Your task to perform on an android device: change notification settings in the gmail app Image 0: 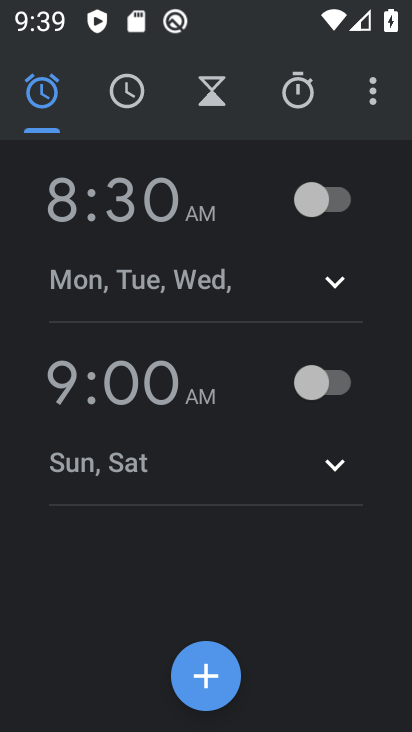
Step 0: press home button
Your task to perform on an android device: change notification settings in the gmail app Image 1: 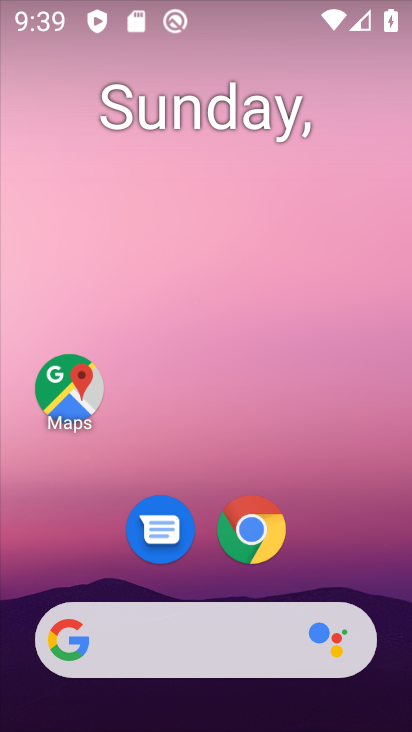
Step 1: drag from (331, 578) to (219, 48)
Your task to perform on an android device: change notification settings in the gmail app Image 2: 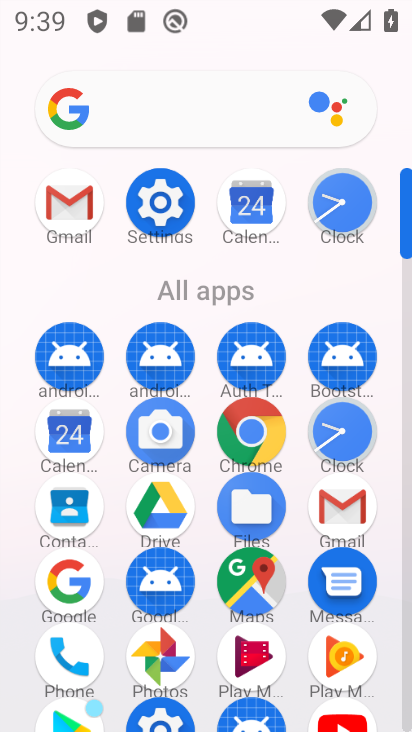
Step 2: click (65, 209)
Your task to perform on an android device: change notification settings in the gmail app Image 3: 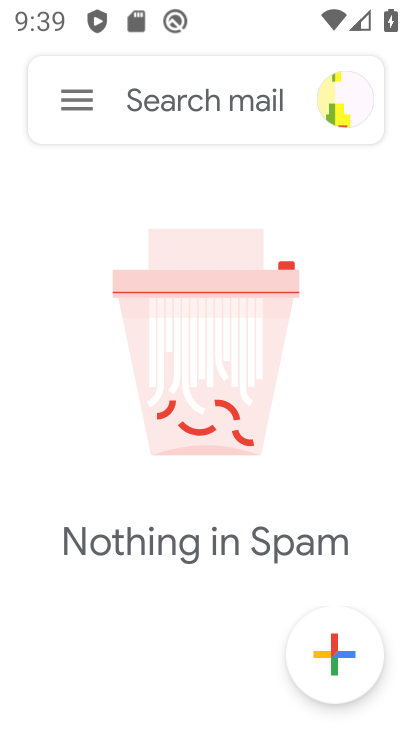
Step 3: click (84, 99)
Your task to perform on an android device: change notification settings in the gmail app Image 4: 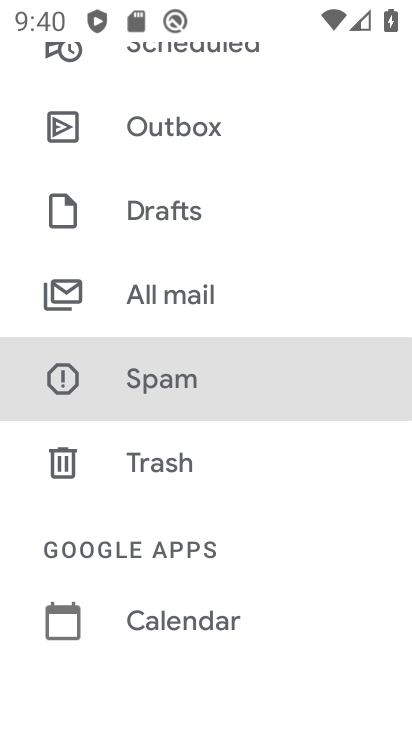
Step 4: drag from (261, 604) to (220, 227)
Your task to perform on an android device: change notification settings in the gmail app Image 5: 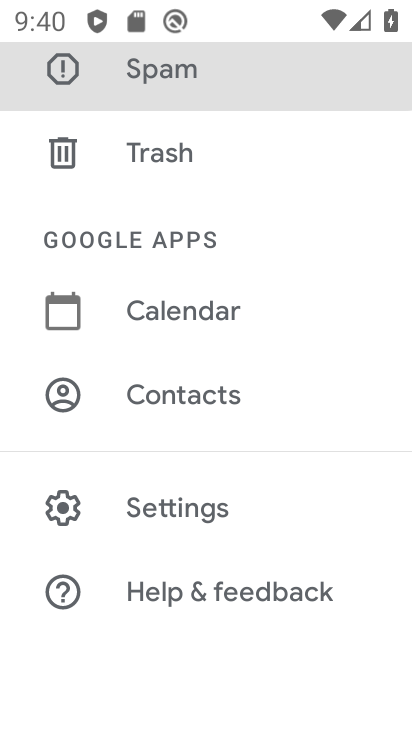
Step 5: click (186, 504)
Your task to perform on an android device: change notification settings in the gmail app Image 6: 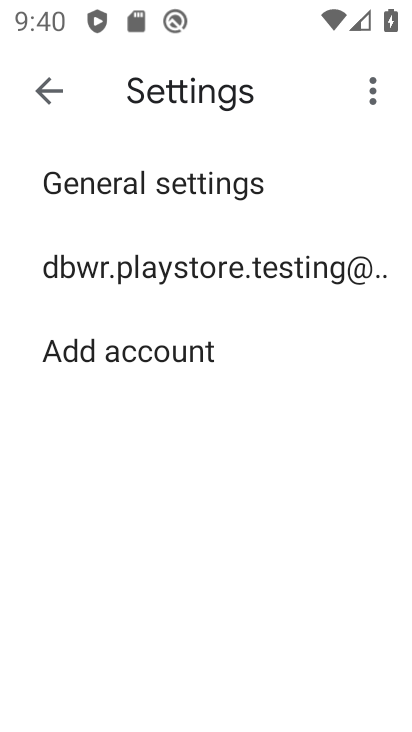
Step 6: click (163, 264)
Your task to perform on an android device: change notification settings in the gmail app Image 7: 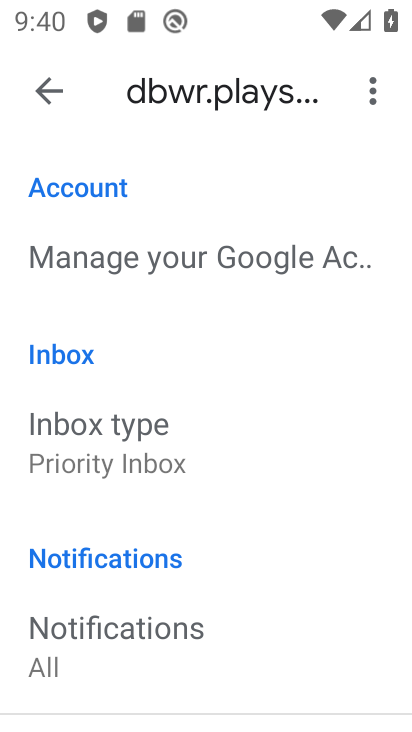
Step 7: drag from (256, 637) to (241, 218)
Your task to perform on an android device: change notification settings in the gmail app Image 8: 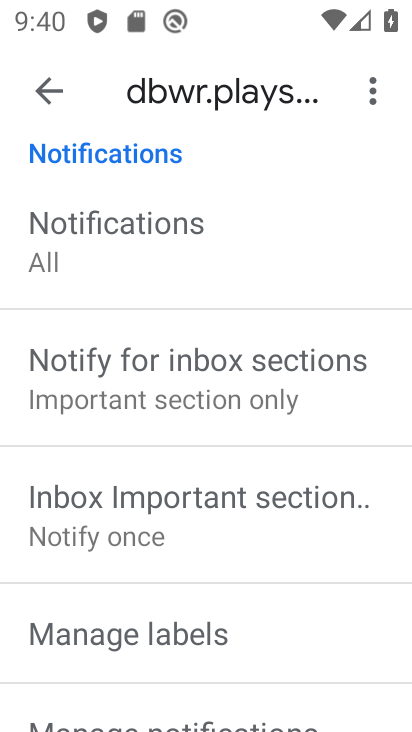
Step 8: drag from (228, 591) to (219, 324)
Your task to perform on an android device: change notification settings in the gmail app Image 9: 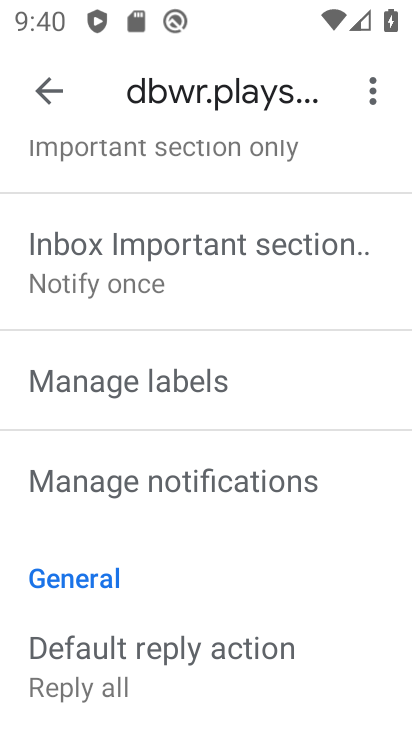
Step 9: click (184, 457)
Your task to perform on an android device: change notification settings in the gmail app Image 10: 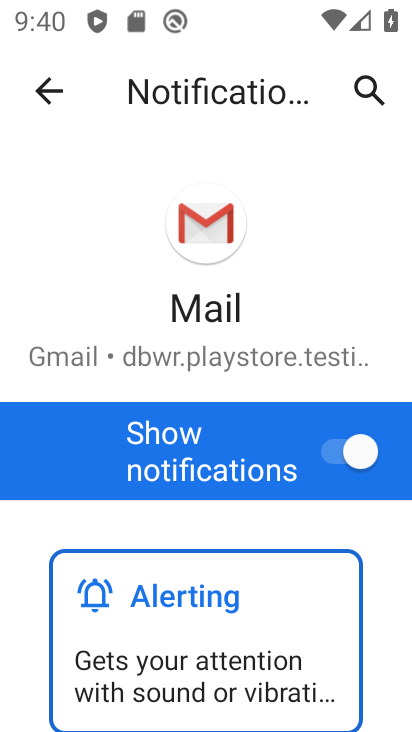
Step 10: click (347, 451)
Your task to perform on an android device: change notification settings in the gmail app Image 11: 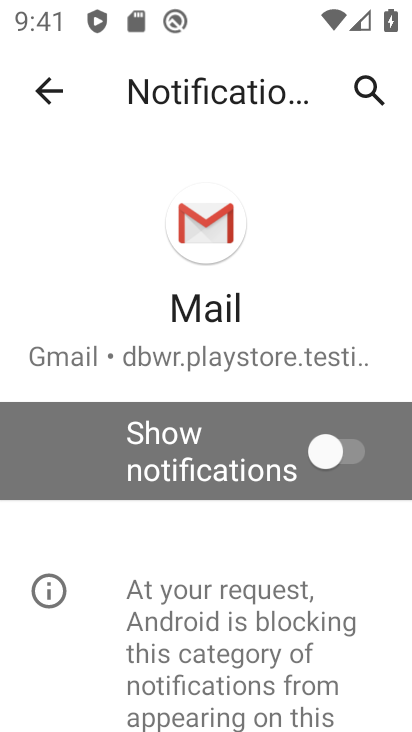
Step 11: task complete